Your task to perform on an android device: see sites visited before in the chrome app Image 0: 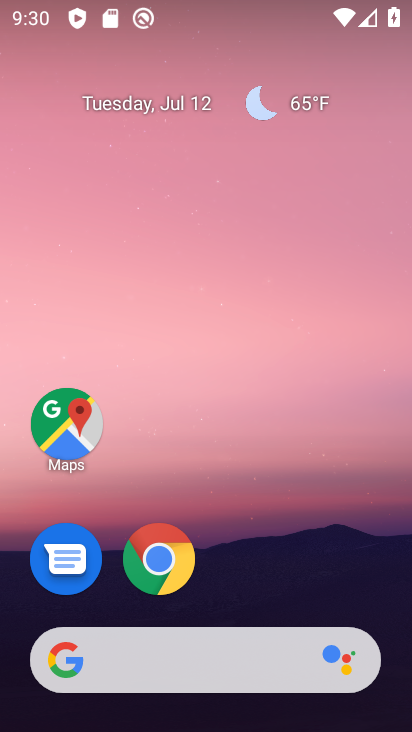
Step 0: drag from (335, 605) to (396, 171)
Your task to perform on an android device: see sites visited before in the chrome app Image 1: 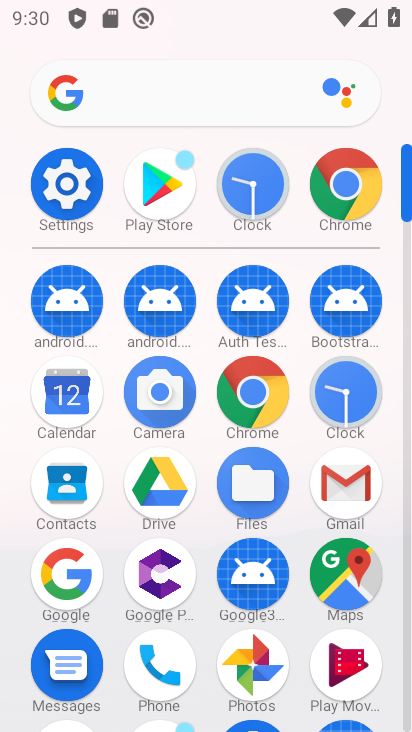
Step 1: click (258, 385)
Your task to perform on an android device: see sites visited before in the chrome app Image 2: 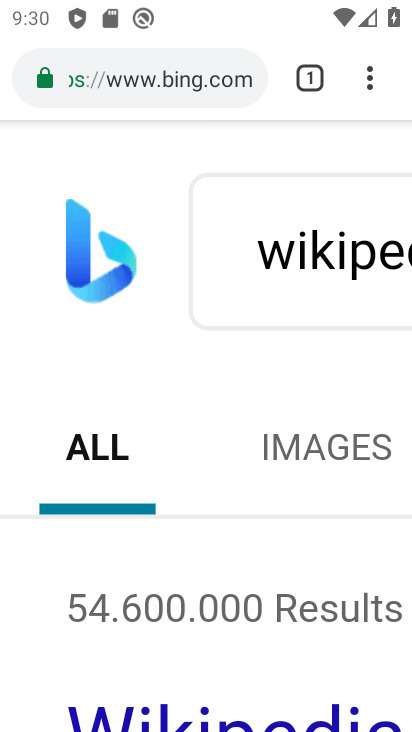
Step 2: click (370, 81)
Your task to perform on an android device: see sites visited before in the chrome app Image 3: 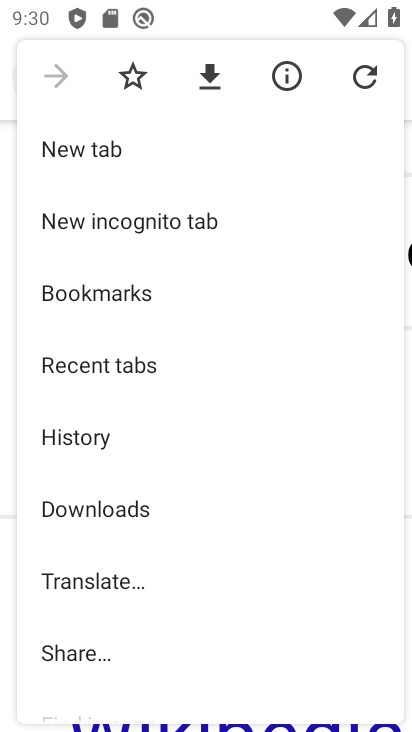
Step 3: drag from (316, 383) to (328, 309)
Your task to perform on an android device: see sites visited before in the chrome app Image 4: 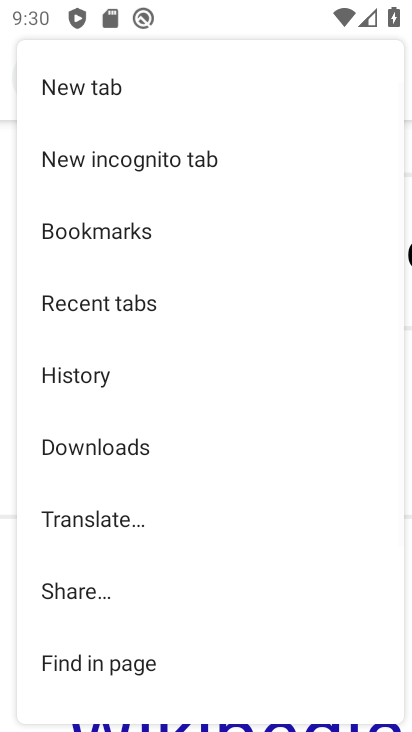
Step 4: drag from (322, 510) to (327, 370)
Your task to perform on an android device: see sites visited before in the chrome app Image 5: 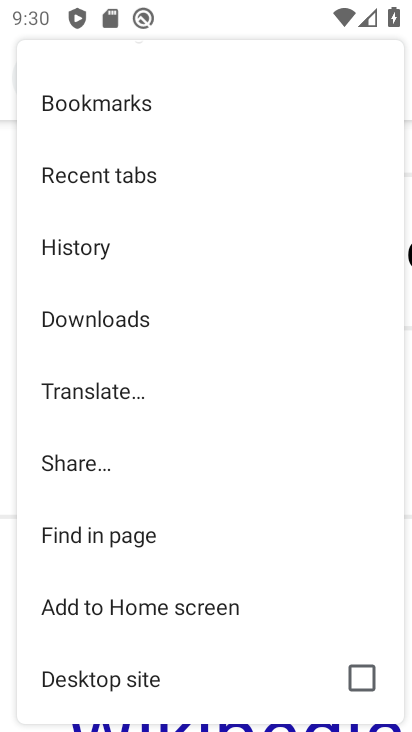
Step 5: drag from (302, 547) to (323, 399)
Your task to perform on an android device: see sites visited before in the chrome app Image 6: 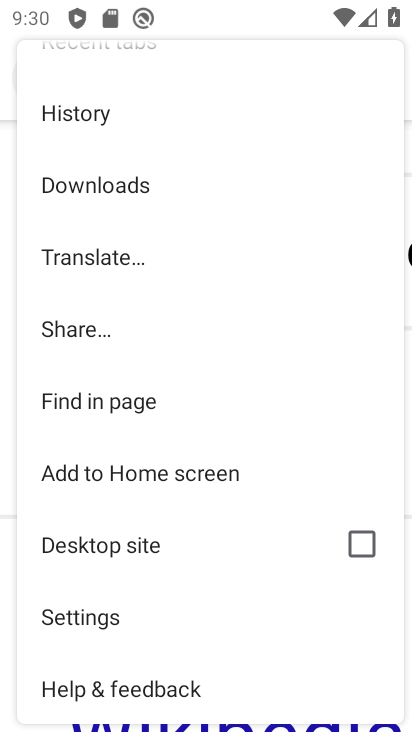
Step 6: drag from (287, 253) to (270, 389)
Your task to perform on an android device: see sites visited before in the chrome app Image 7: 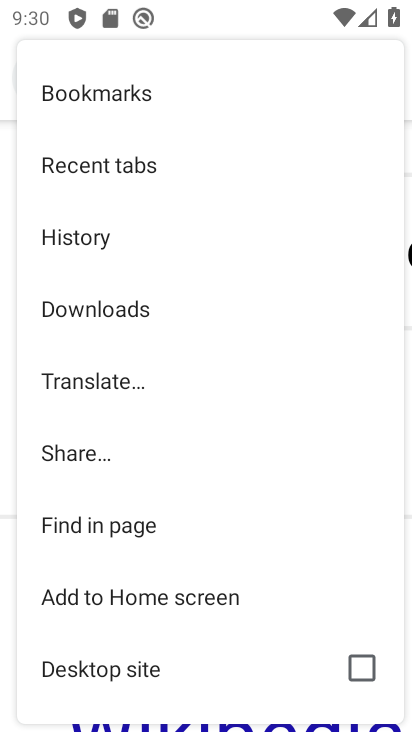
Step 7: drag from (270, 151) to (279, 389)
Your task to perform on an android device: see sites visited before in the chrome app Image 8: 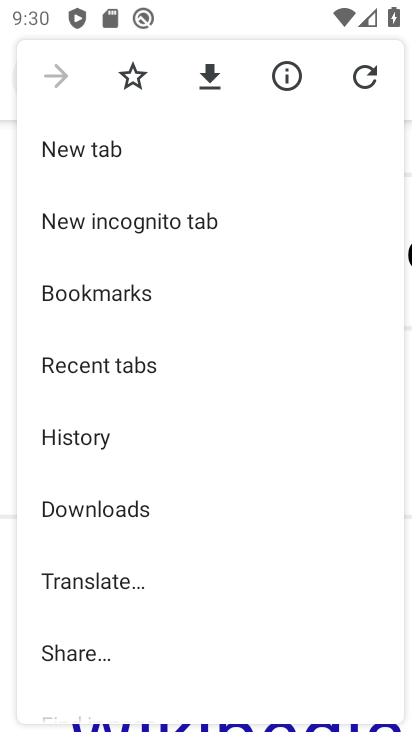
Step 8: click (111, 445)
Your task to perform on an android device: see sites visited before in the chrome app Image 9: 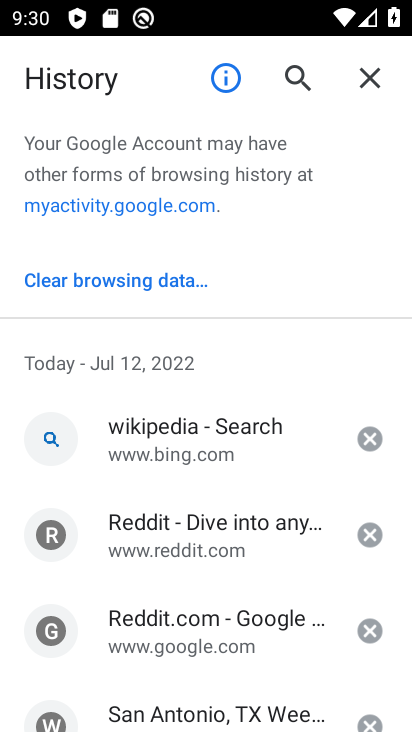
Step 9: task complete